Your task to perform on an android device: delete location history Image 0: 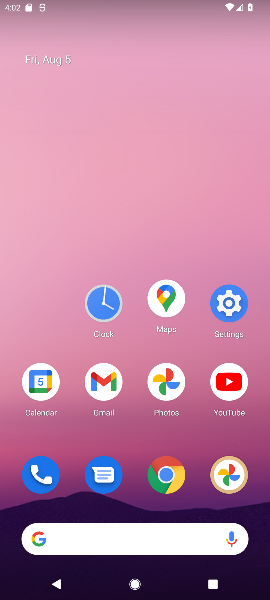
Step 0: click (165, 298)
Your task to perform on an android device: delete location history Image 1: 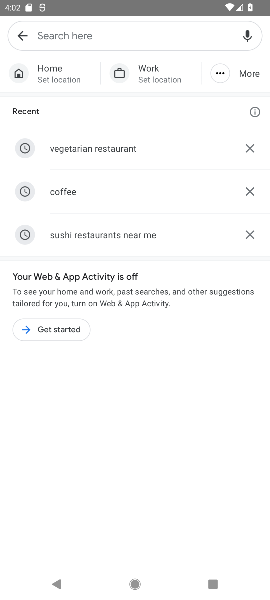
Step 1: click (21, 37)
Your task to perform on an android device: delete location history Image 2: 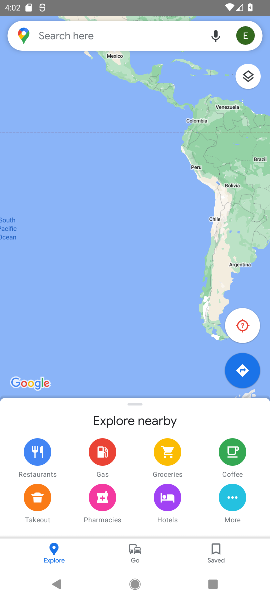
Step 2: click (48, 115)
Your task to perform on an android device: delete location history Image 3: 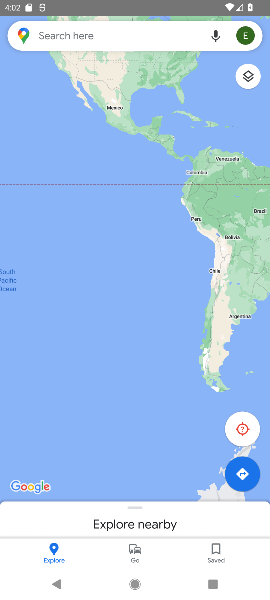
Step 3: drag from (47, 173) to (51, 328)
Your task to perform on an android device: delete location history Image 4: 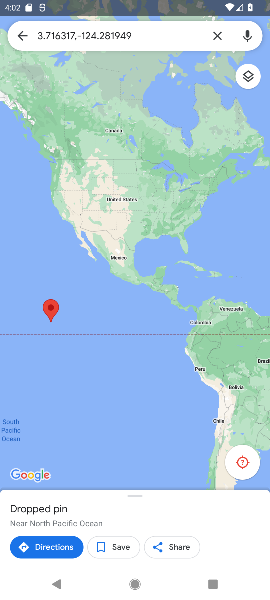
Step 4: press back button
Your task to perform on an android device: delete location history Image 5: 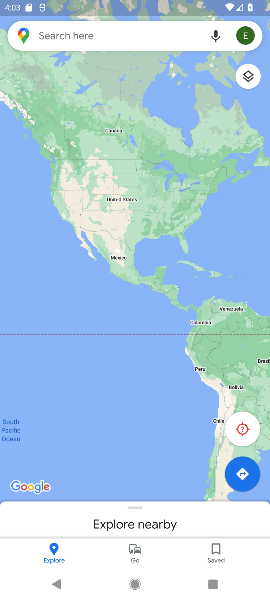
Step 5: click (20, 41)
Your task to perform on an android device: delete location history Image 6: 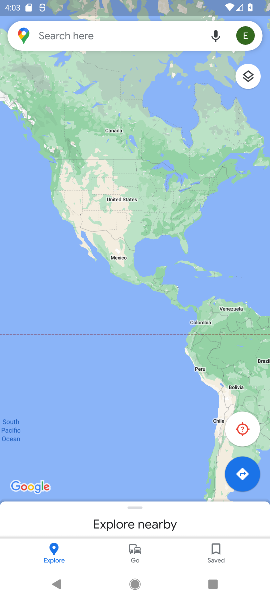
Step 6: press back button
Your task to perform on an android device: delete location history Image 7: 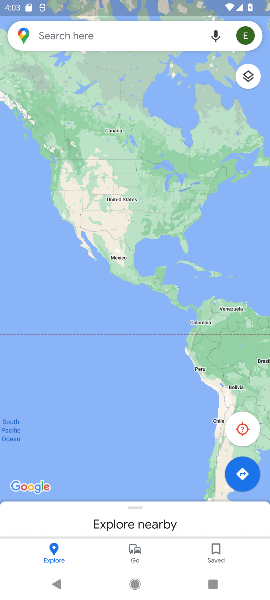
Step 7: click (244, 35)
Your task to perform on an android device: delete location history Image 8: 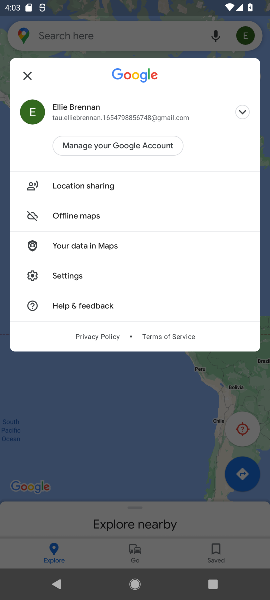
Step 8: click (72, 274)
Your task to perform on an android device: delete location history Image 9: 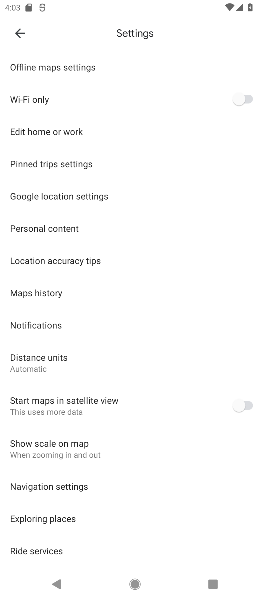
Step 9: task complete